Your task to perform on an android device: install app "ZOOM Cloud Meetings" Image 0: 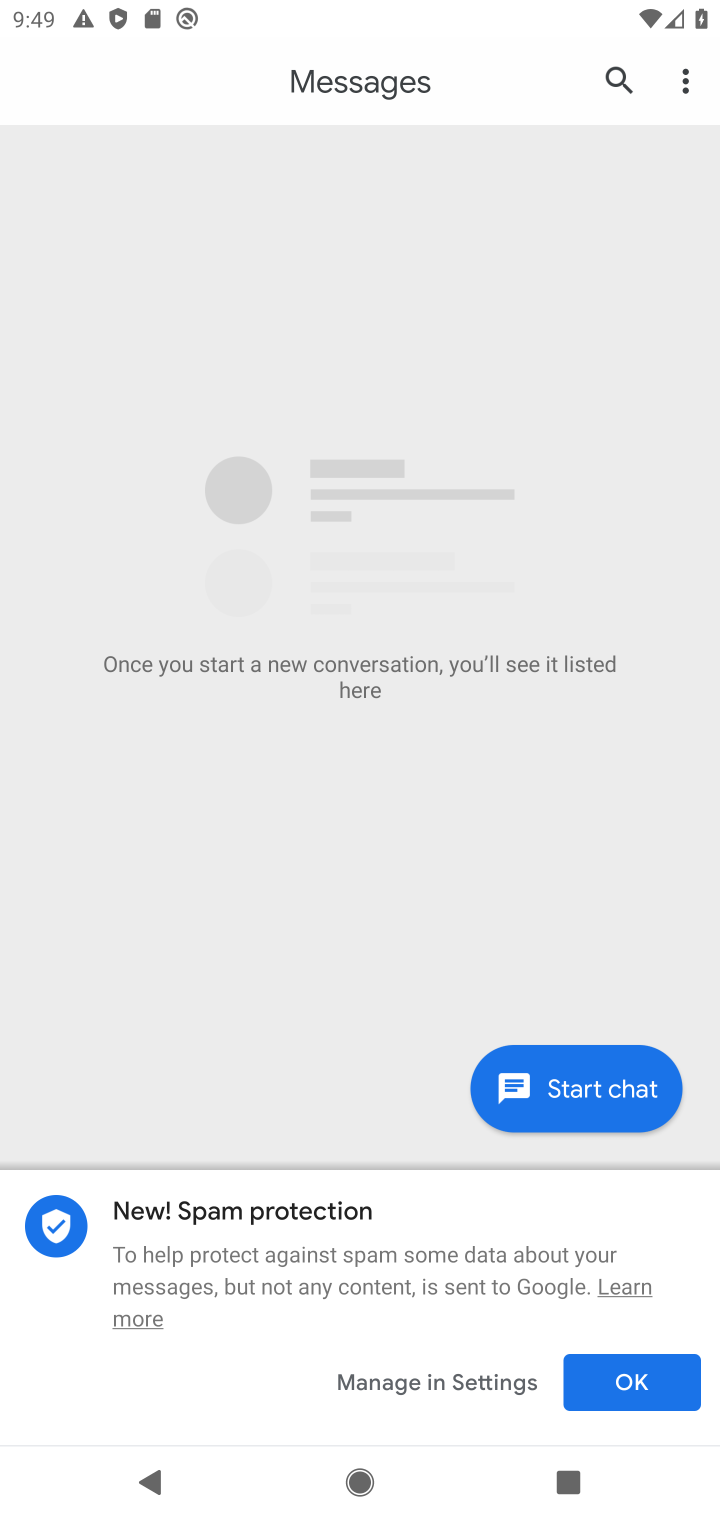
Step 0: press home button
Your task to perform on an android device: install app "ZOOM Cloud Meetings" Image 1: 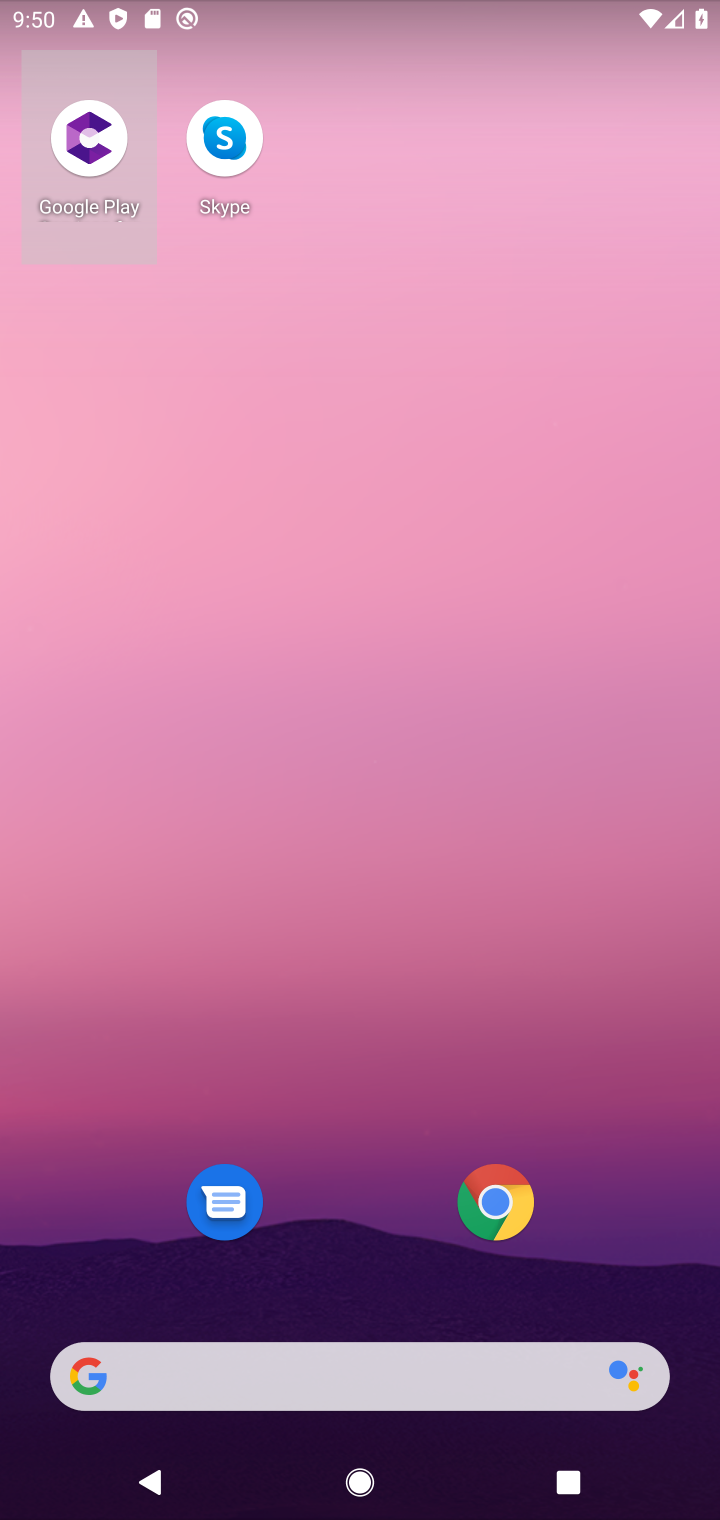
Step 1: click (425, 1366)
Your task to perform on an android device: install app "ZOOM Cloud Meetings" Image 2: 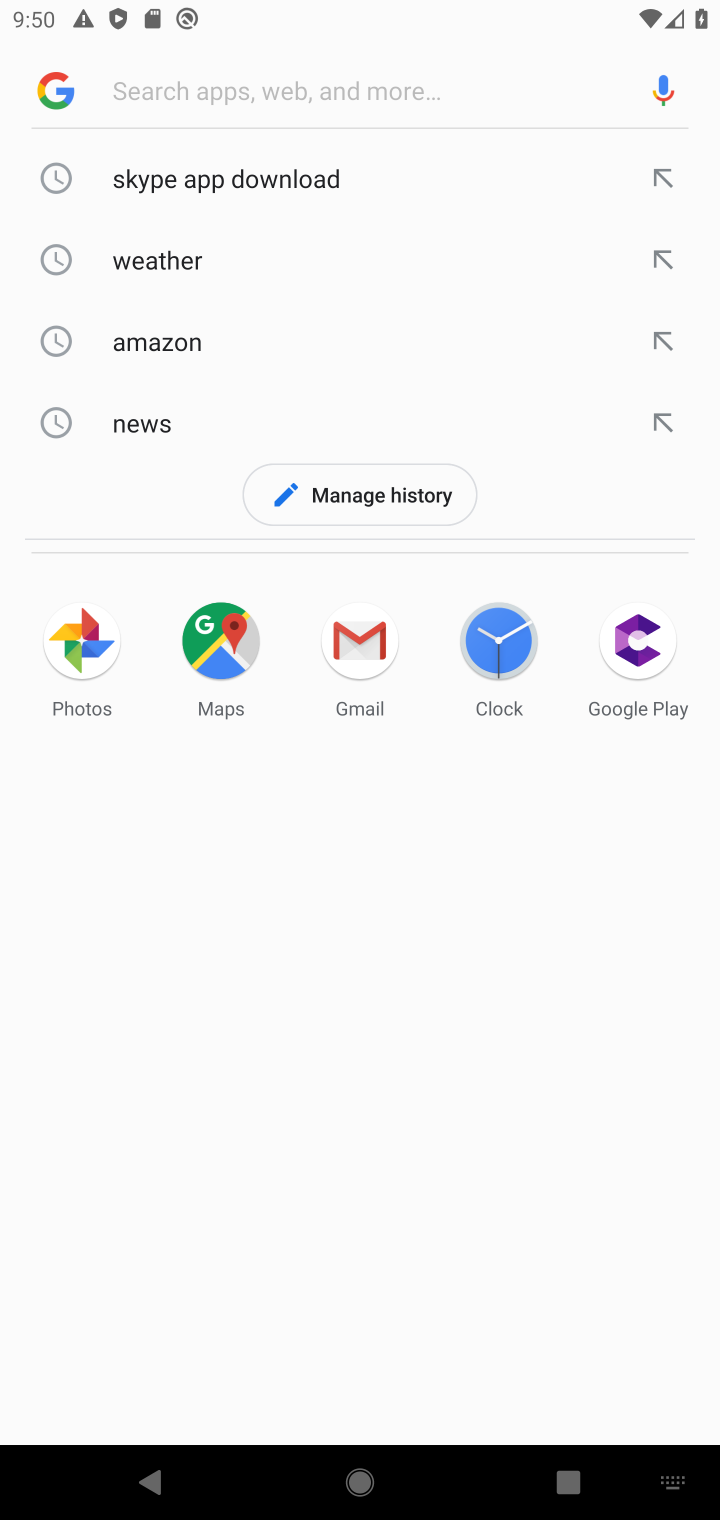
Step 2: type "zoom cloud "
Your task to perform on an android device: install app "ZOOM Cloud Meetings" Image 3: 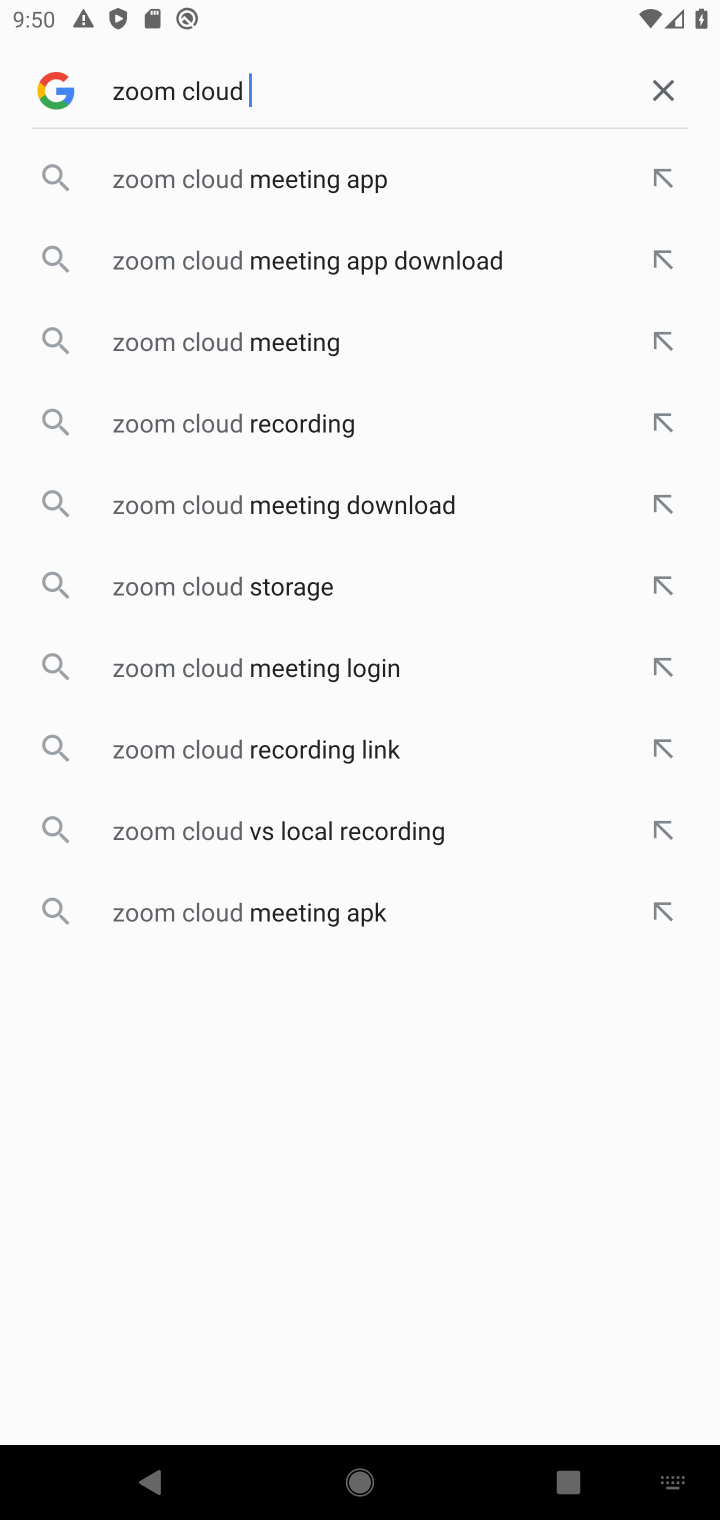
Step 3: click (372, 187)
Your task to perform on an android device: install app "ZOOM Cloud Meetings" Image 4: 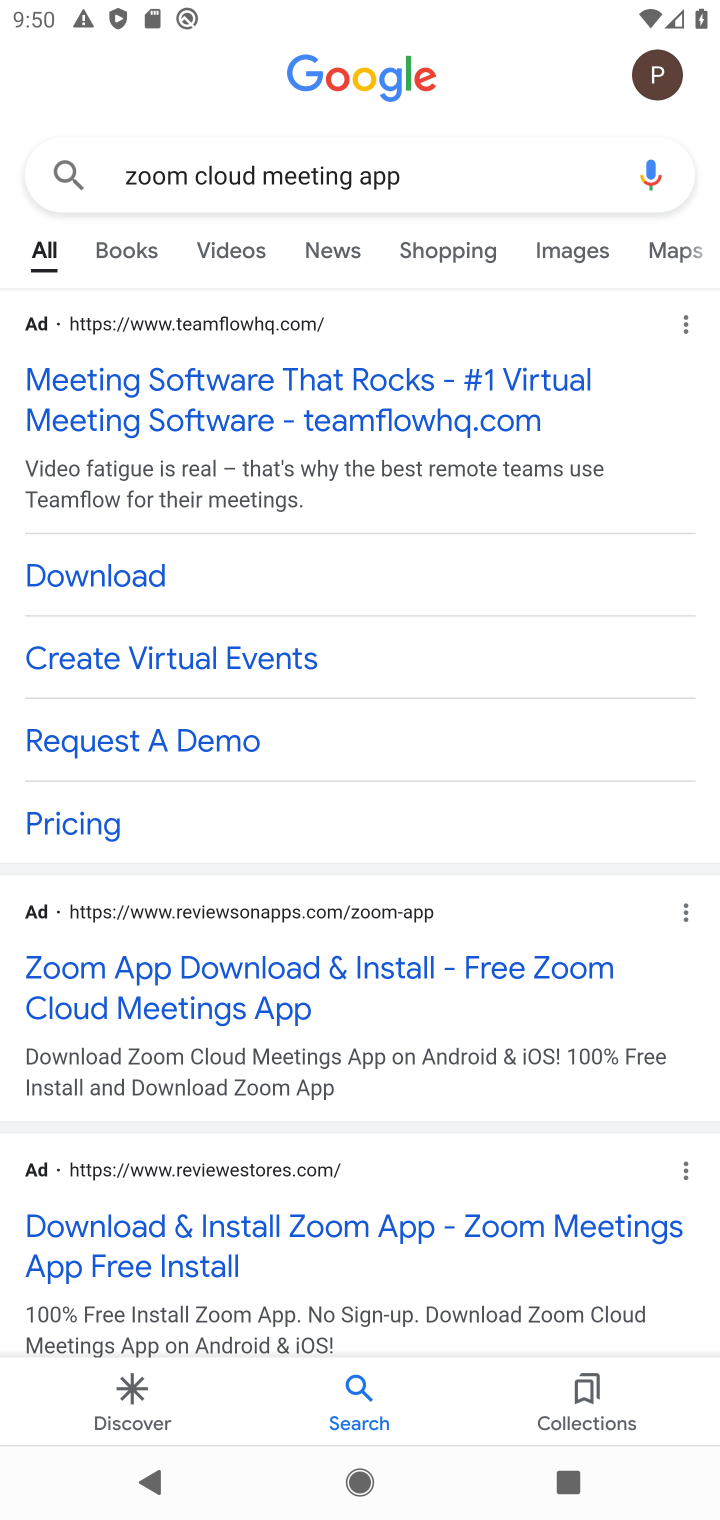
Step 4: drag from (347, 1114) to (389, 547)
Your task to perform on an android device: install app "ZOOM Cloud Meetings" Image 5: 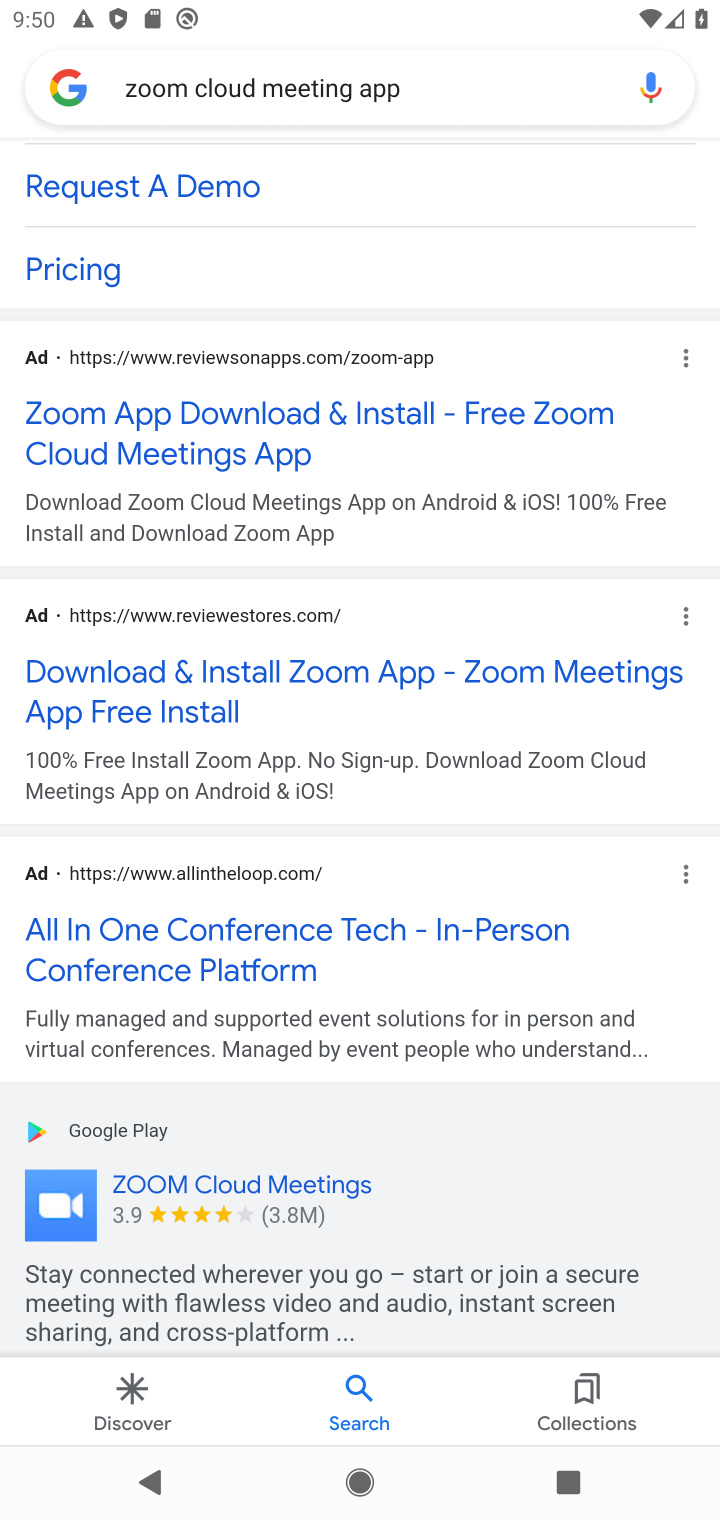
Step 5: drag from (458, 1206) to (458, 671)
Your task to perform on an android device: install app "ZOOM Cloud Meetings" Image 6: 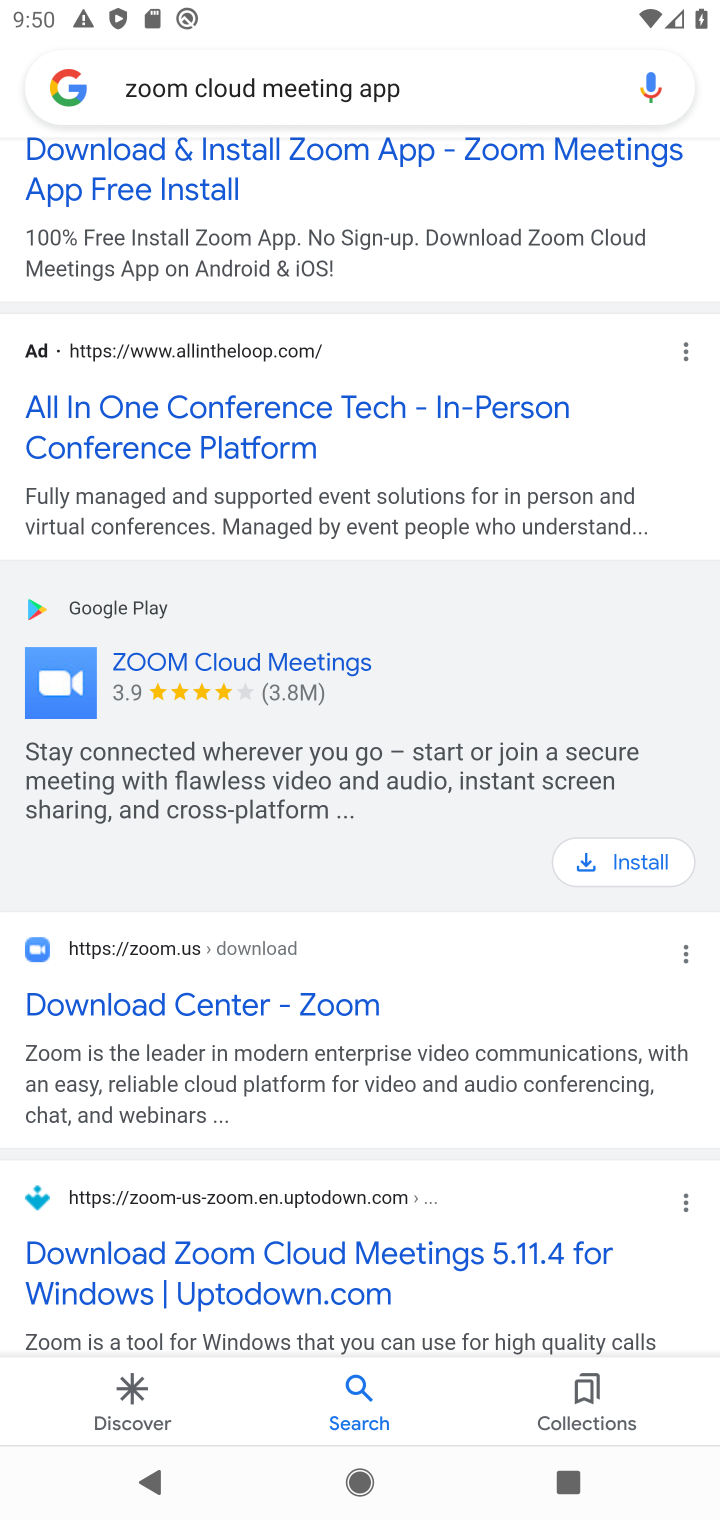
Step 6: click (633, 859)
Your task to perform on an android device: install app "ZOOM Cloud Meetings" Image 7: 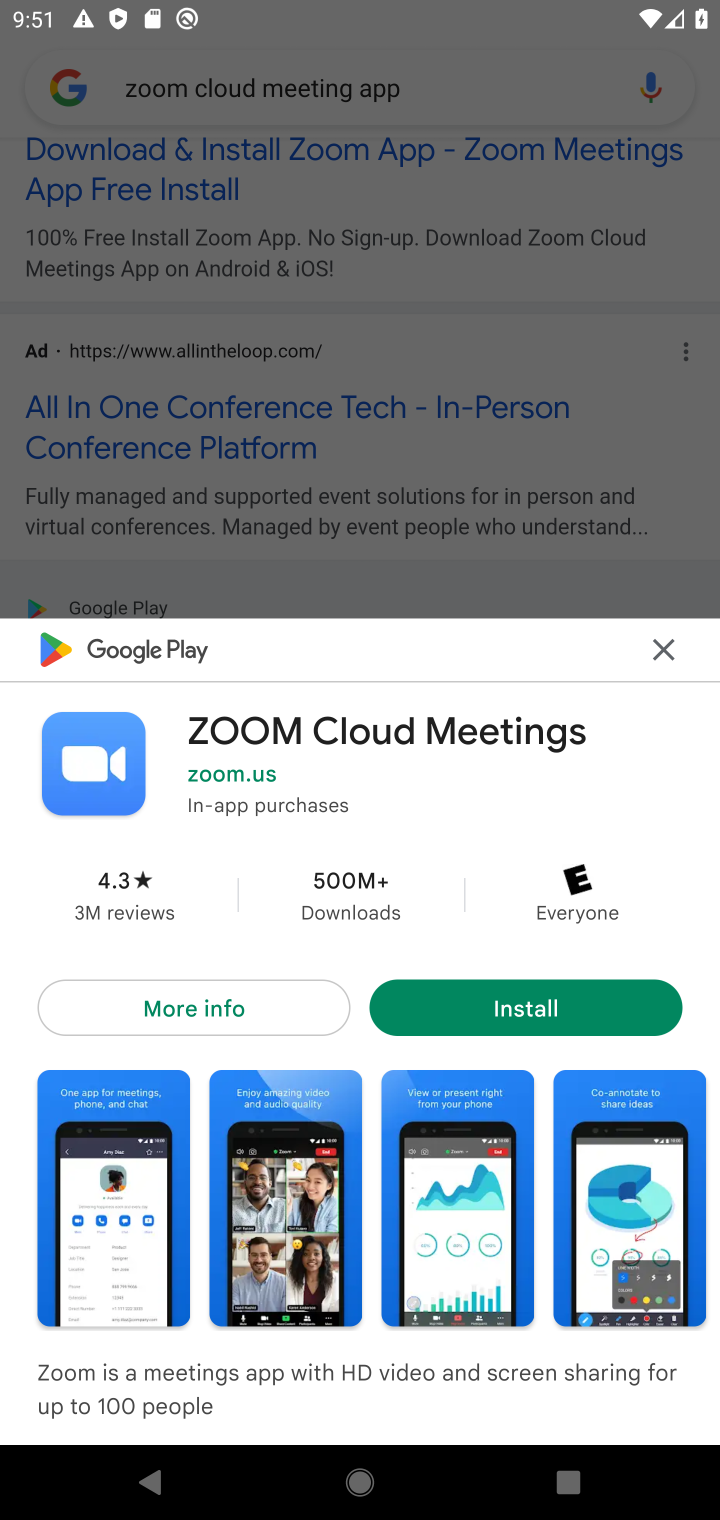
Step 7: click (588, 1004)
Your task to perform on an android device: install app "ZOOM Cloud Meetings" Image 8: 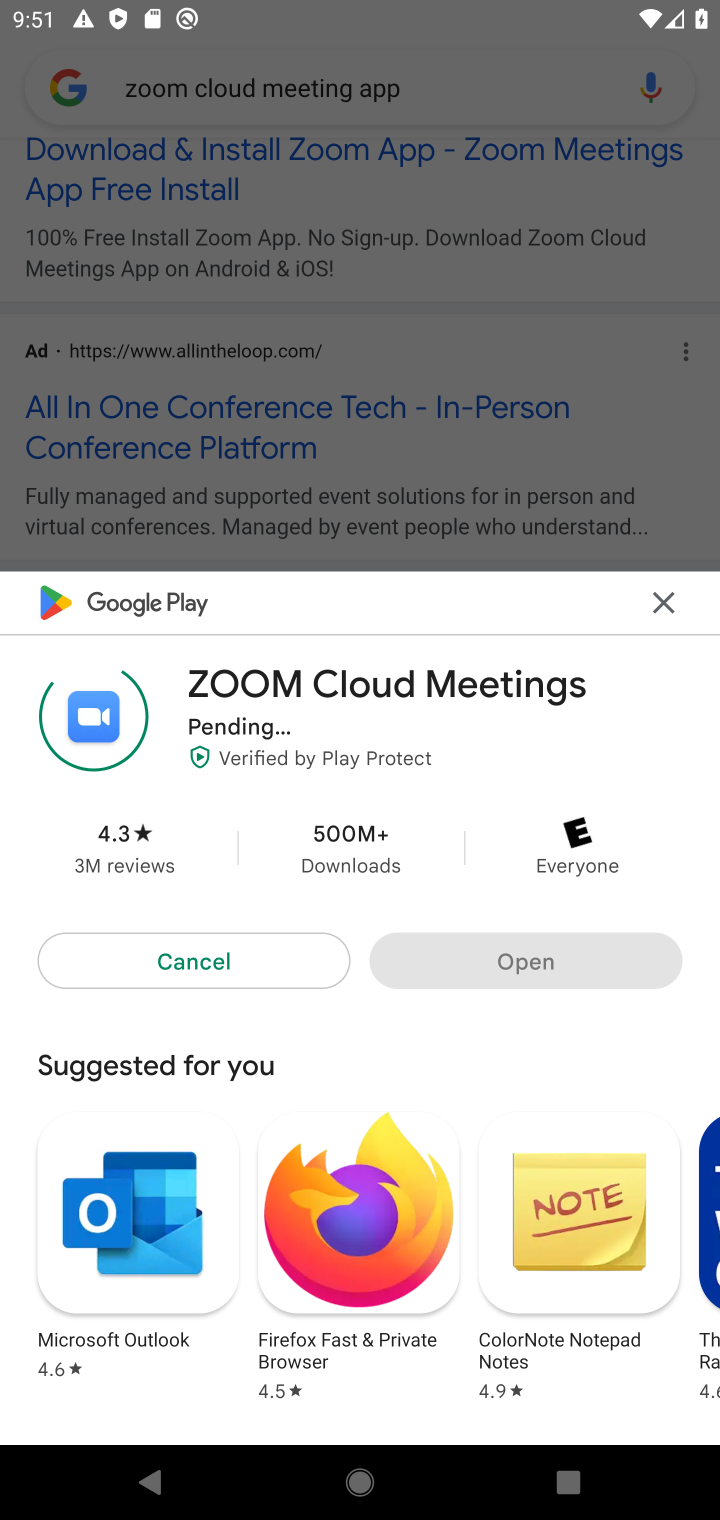
Step 8: task complete